Your task to perform on an android device: turn on notifications settings in the gmail app Image 0: 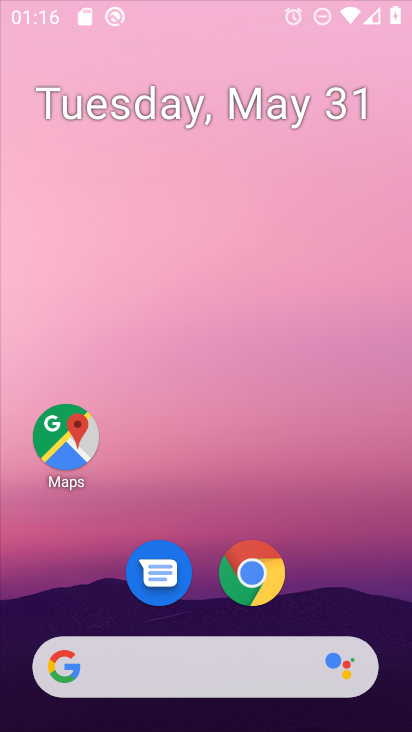
Step 0: click (343, 450)
Your task to perform on an android device: turn on notifications settings in the gmail app Image 1: 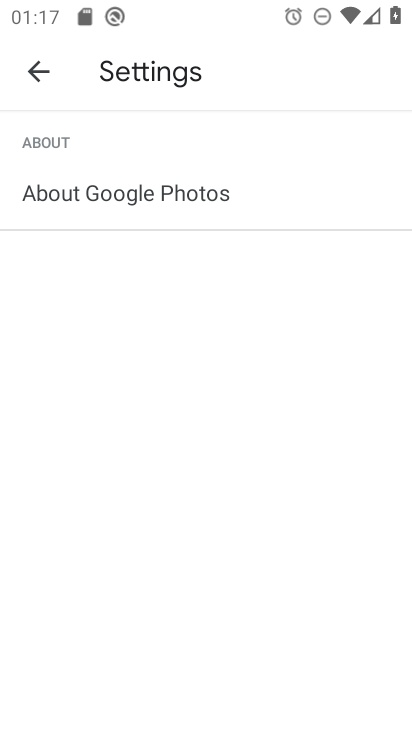
Step 1: press home button
Your task to perform on an android device: turn on notifications settings in the gmail app Image 2: 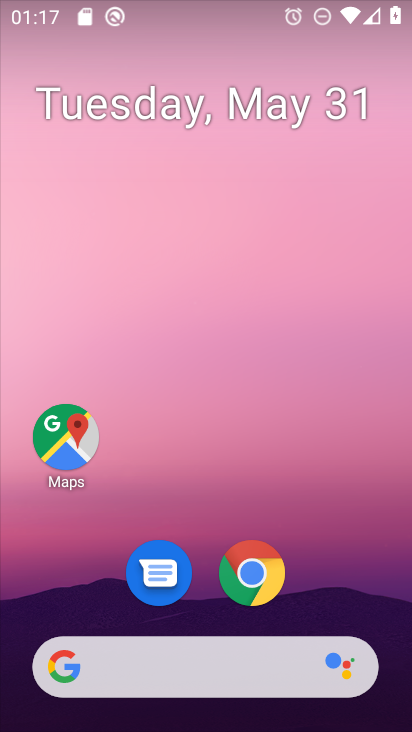
Step 2: drag from (201, 365) to (173, 5)
Your task to perform on an android device: turn on notifications settings in the gmail app Image 3: 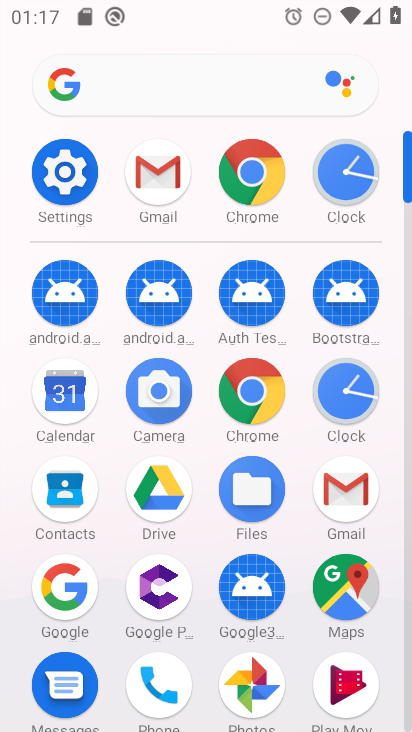
Step 3: click (339, 498)
Your task to perform on an android device: turn on notifications settings in the gmail app Image 4: 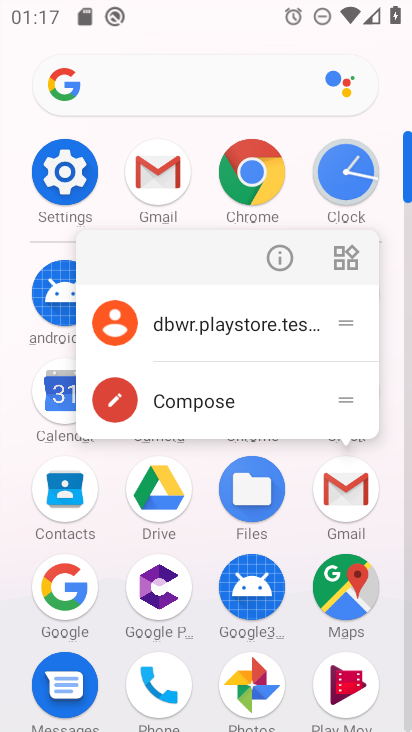
Step 4: click (281, 256)
Your task to perform on an android device: turn on notifications settings in the gmail app Image 5: 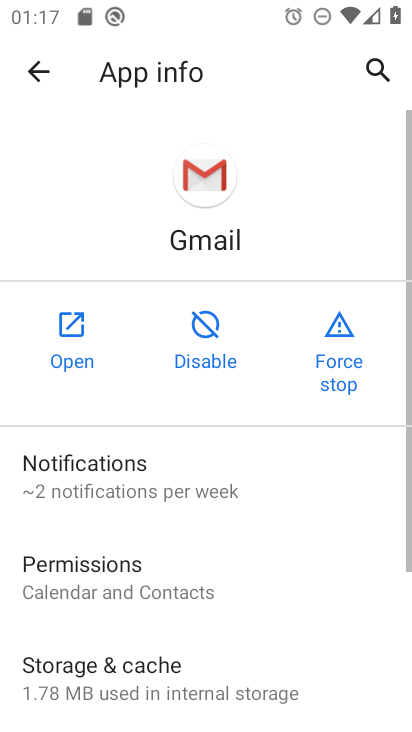
Step 5: click (236, 482)
Your task to perform on an android device: turn on notifications settings in the gmail app Image 6: 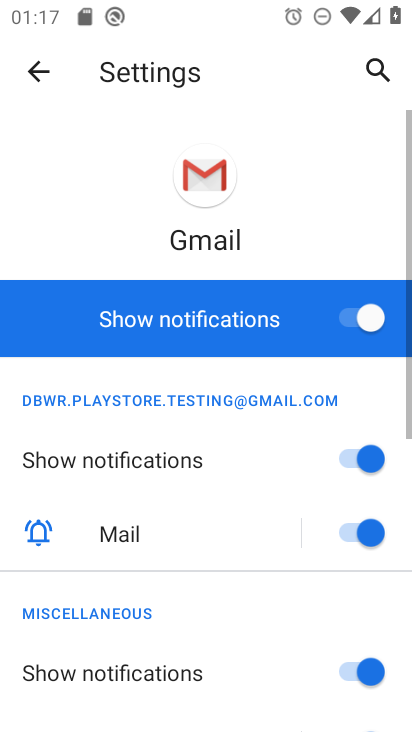
Step 6: click (375, 320)
Your task to perform on an android device: turn on notifications settings in the gmail app Image 7: 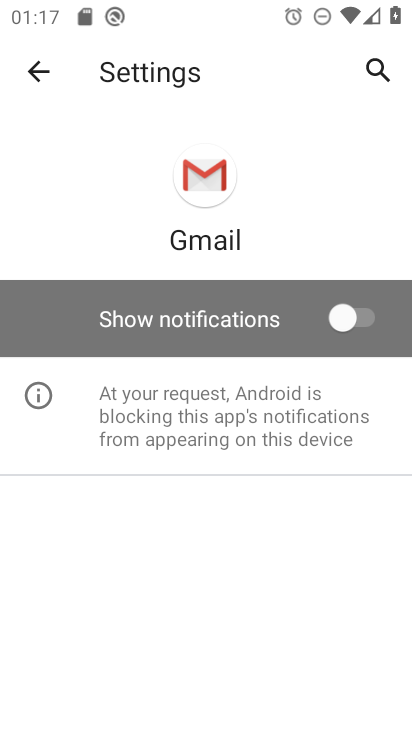
Step 7: drag from (349, 327) to (404, 491)
Your task to perform on an android device: turn on notifications settings in the gmail app Image 8: 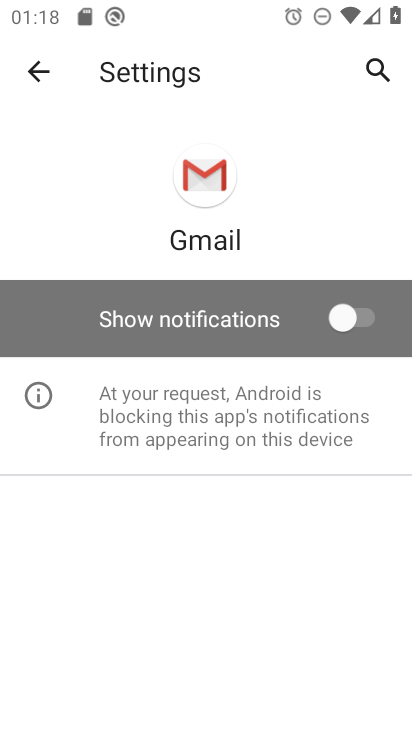
Step 8: click (342, 311)
Your task to perform on an android device: turn on notifications settings in the gmail app Image 9: 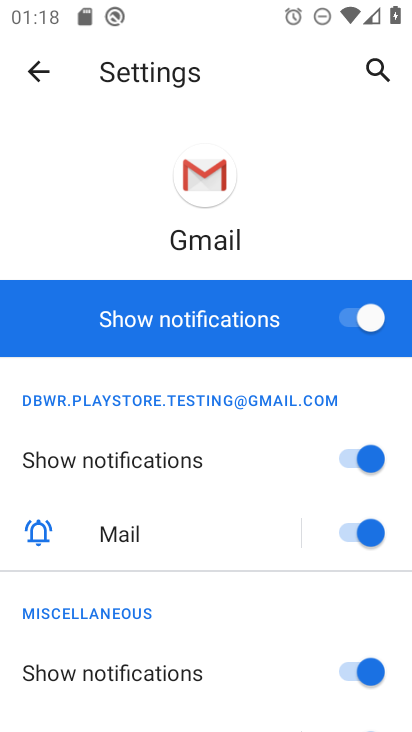
Step 9: task complete